Your task to perform on an android device: turn on bluetooth scan Image 0: 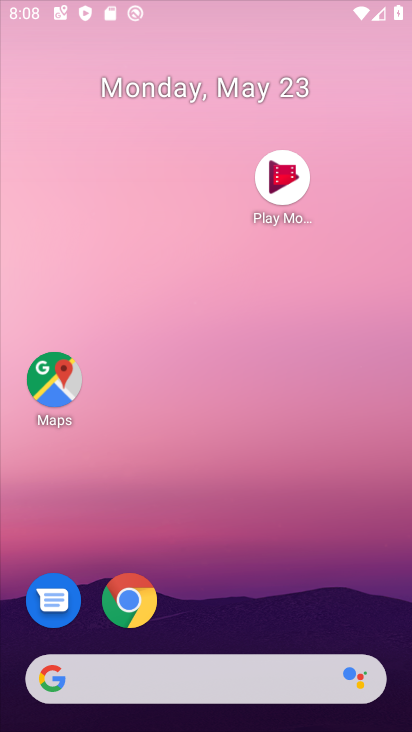
Step 0: press back button
Your task to perform on an android device: turn on bluetooth scan Image 1: 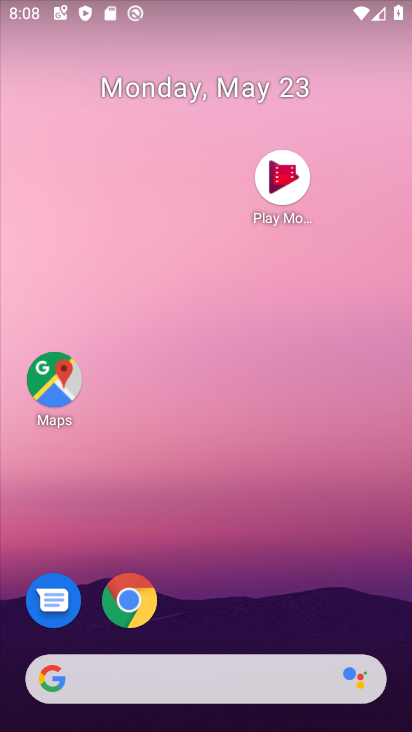
Step 1: drag from (282, 674) to (193, 83)
Your task to perform on an android device: turn on bluetooth scan Image 2: 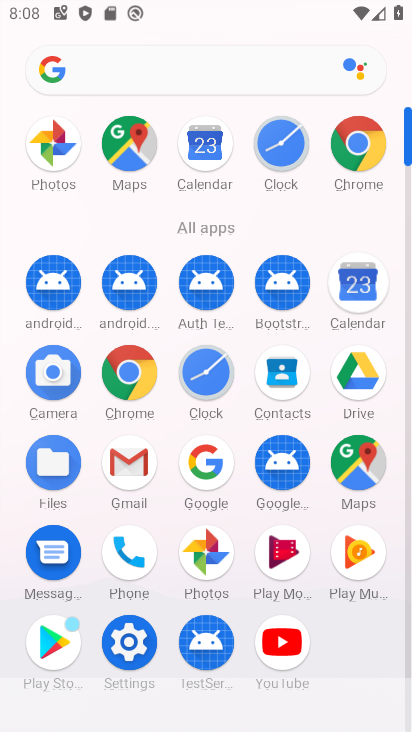
Step 2: click (134, 634)
Your task to perform on an android device: turn on bluetooth scan Image 3: 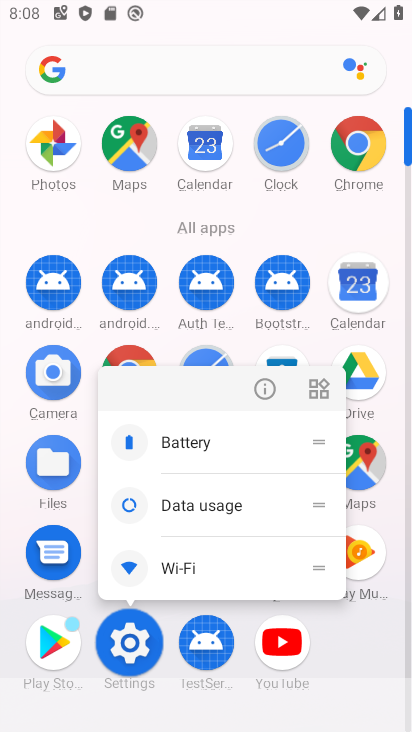
Step 3: click (136, 635)
Your task to perform on an android device: turn on bluetooth scan Image 4: 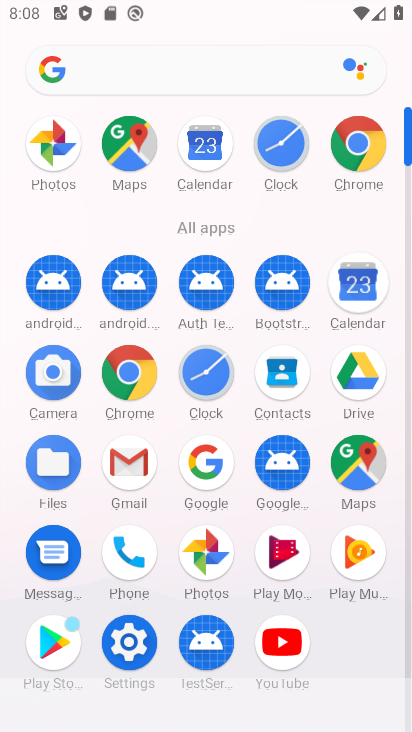
Step 4: click (136, 635)
Your task to perform on an android device: turn on bluetooth scan Image 5: 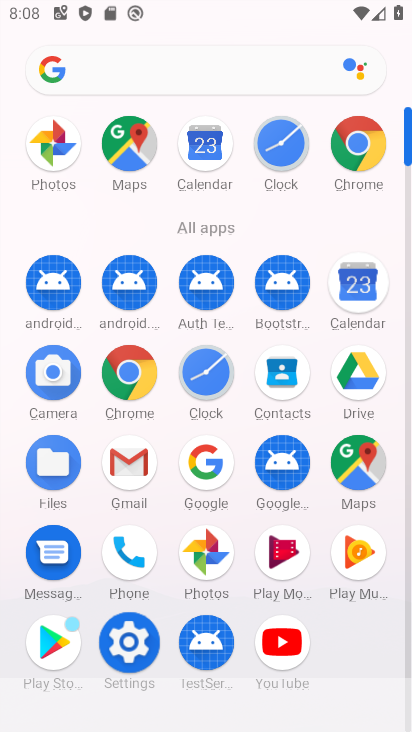
Step 5: click (137, 635)
Your task to perform on an android device: turn on bluetooth scan Image 6: 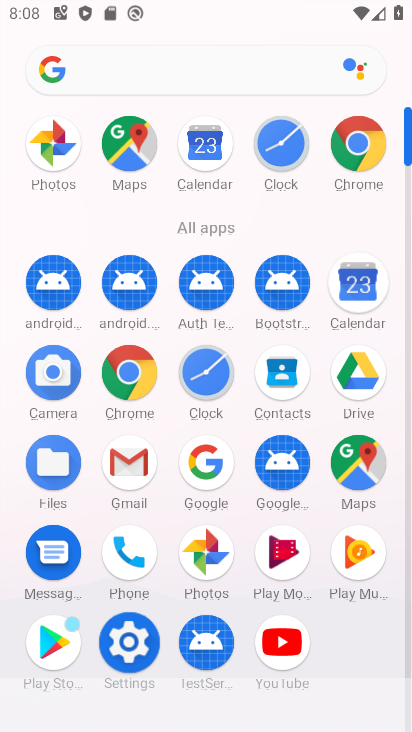
Step 6: click (137, 635)
Your task to perform on an android device: turn on bluetooth scan Image 7: 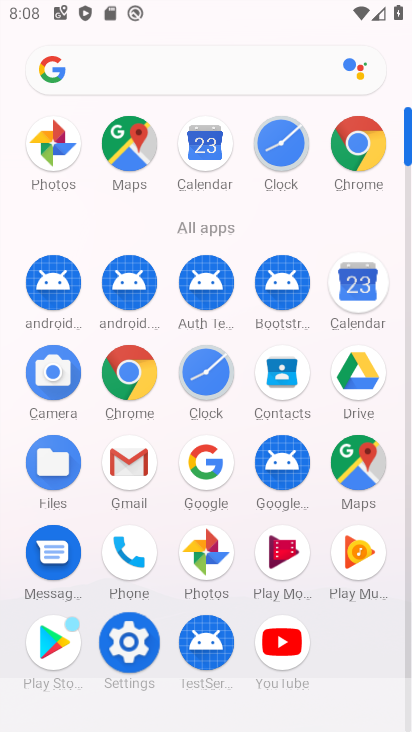
Step 7: click (137, 635)
Your task to perform on an android device: turn on bluetooth scan Image 8: 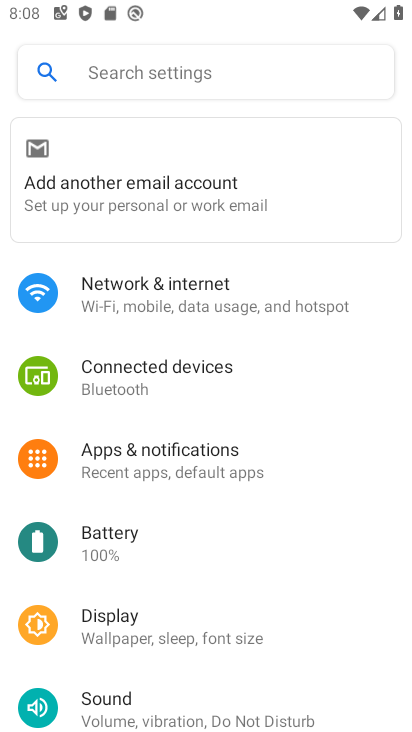
Step 8: drag from (170, 593) to (150, 177)
Your task to perform on an android device: turn on bluetooth scan Image 9: 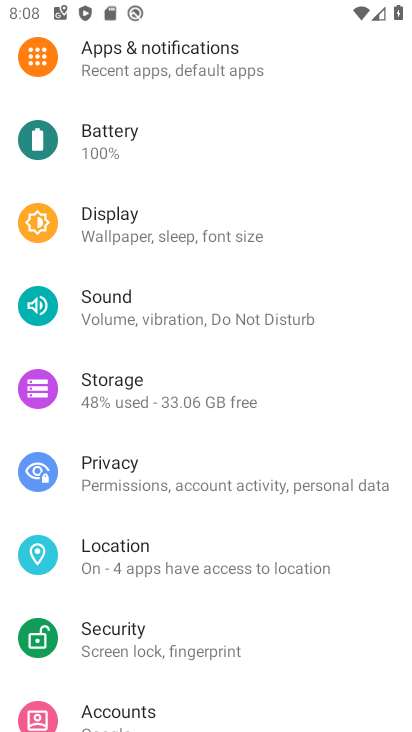
Step 9: drag from (196, 441) to (188, 161)
Your task to perform on an android device: turn on bluetooth scan Image 10: 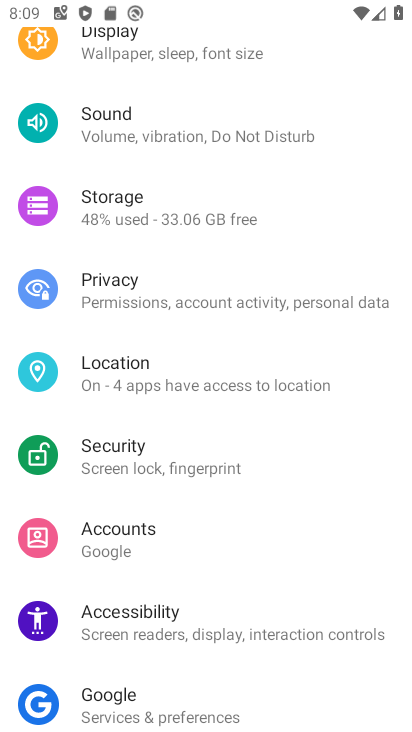
Step 10: drag from (216, 447) to (190, 195)
Your task to perform on an android device: turn on bluetooth scan Image 11: 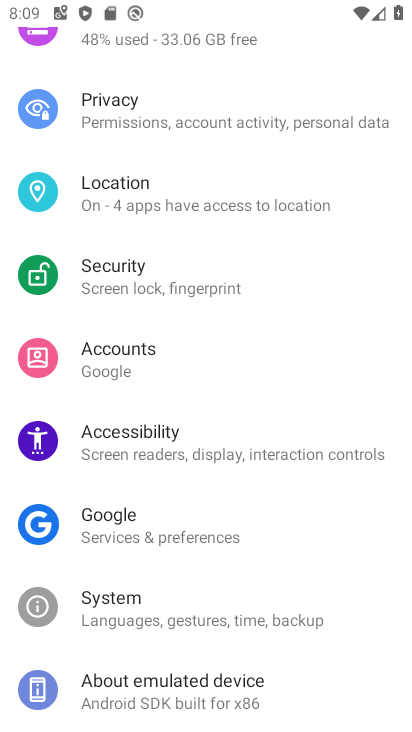
Step 11: click (120, 198)
Your task to perform on an android device: turn on bluetooth scan Image 12: 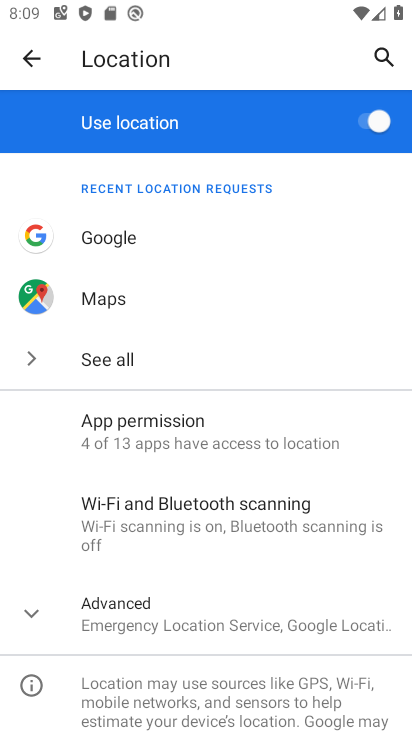
Step 12: click (130, 429)
Your task to perform on an android device: turn on bluetooth scan Image 13: 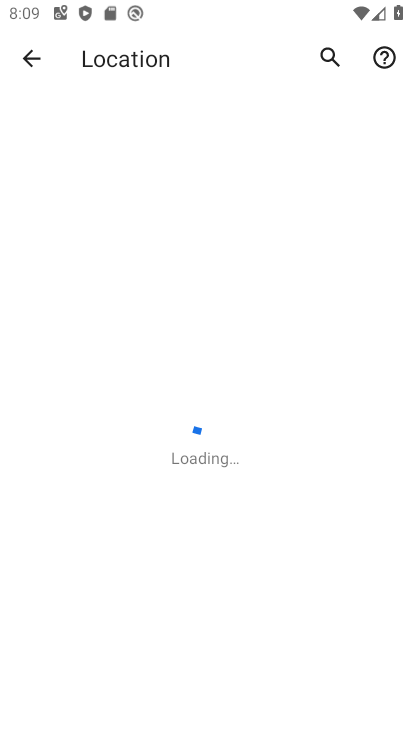
Step 13: click (34, 61)
Your task to perform on an android device: turn on bluetooth scan Image 14: 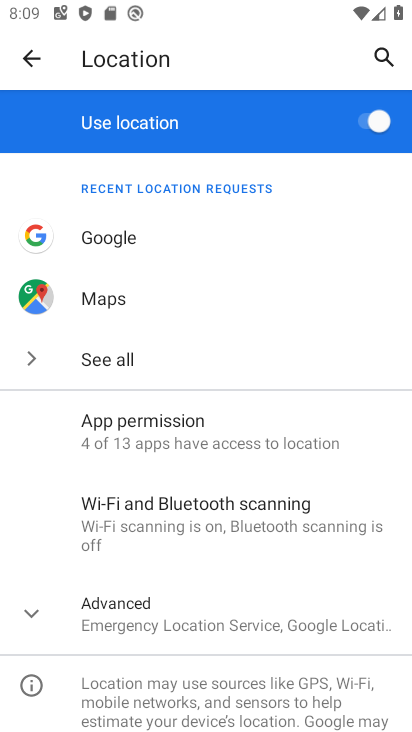
Step 14: click (151, 516)
Your task to perform on an android device: turn on bluetooth scan Image 15: 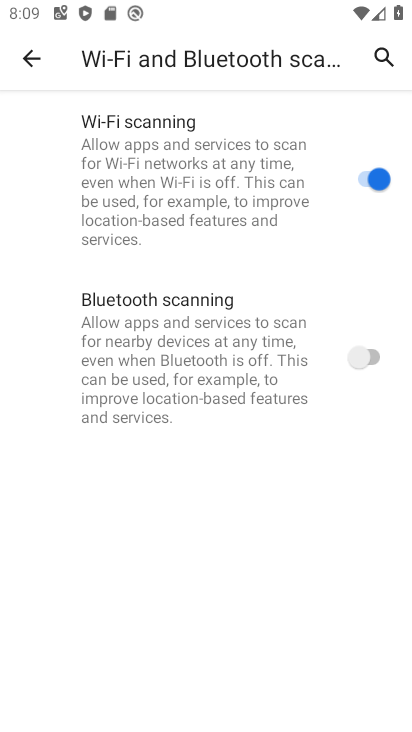
Step 15: click (364, 354)
Your task to perform on an android device: turn on bluetooth scan Image 16: 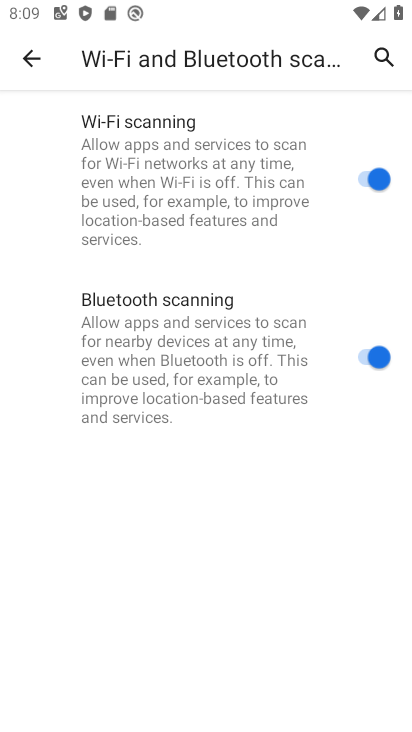
Step 16: task complete